Your task to perform on an android device: turn on sleep mode Image 0: 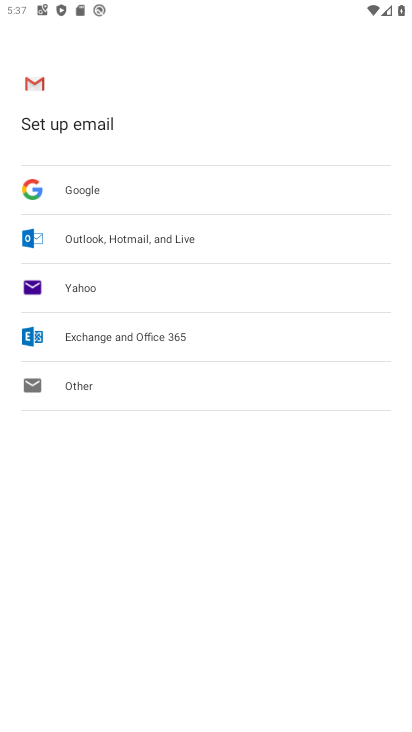
Step 0: press home button
Your task to perform on an android device: turn on sleep mode Image 1: 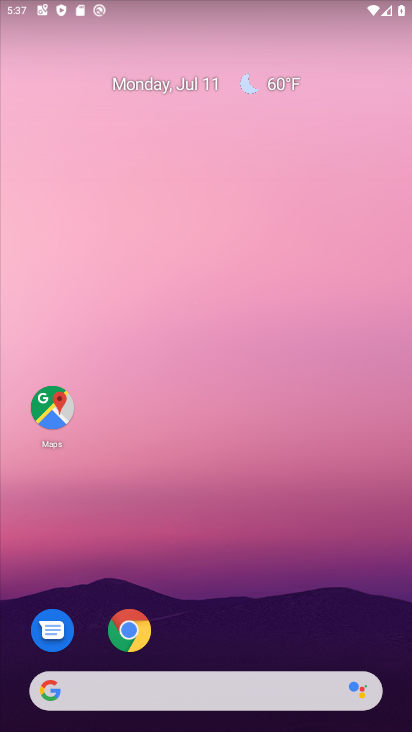
Step 1: drag from (177, 586) to (112, 48)
Your task to perform on an android device: turn on sleep mode Image 2: 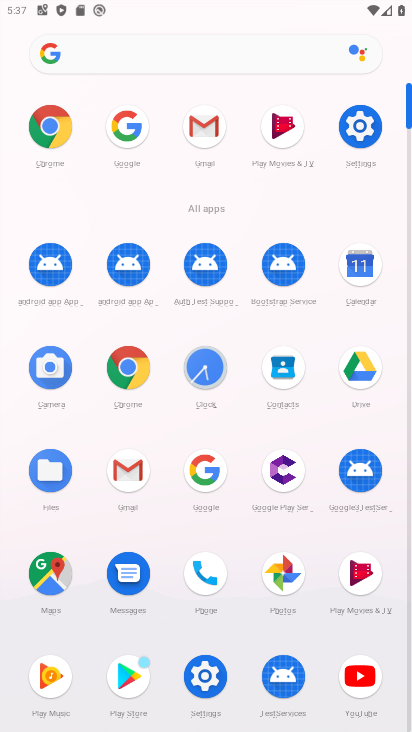
Step 2: click (351, 132)
Your task to perform on an android device: turn on sleep mode Image 3: 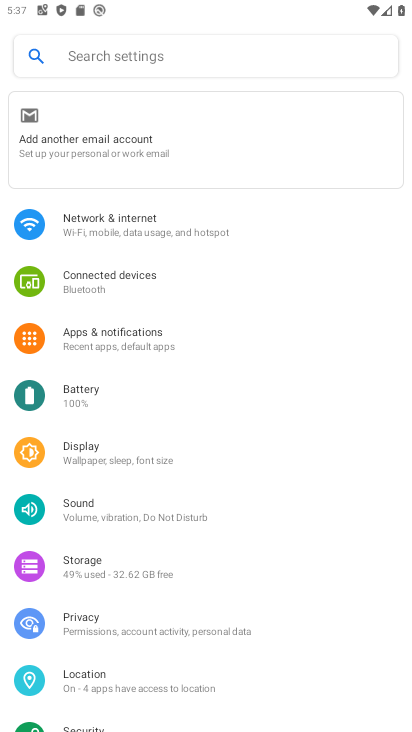
Step 3: task complete